Your task to perform on an android device: Open Yahoo.com Image 0: 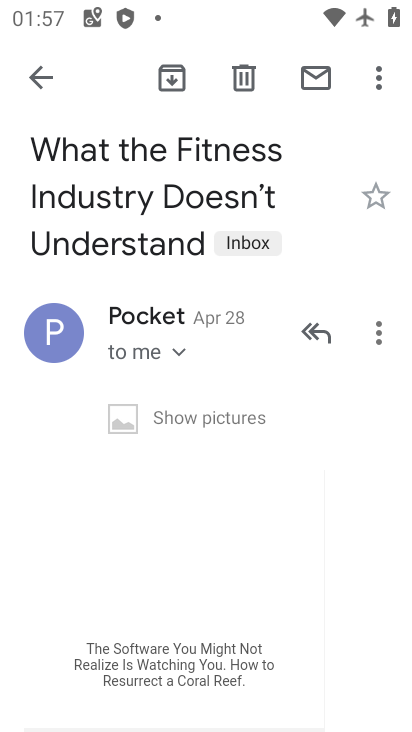
Step 0: press home button
Your task to perform on an android device: Open Yahoo.com Image 1: 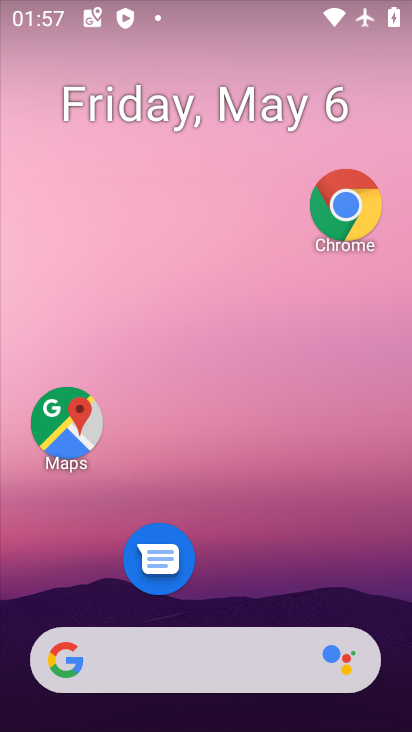
Step 1: click (361, 211)
Your task to perform on an android device: Open Yahoo.com Image 2: 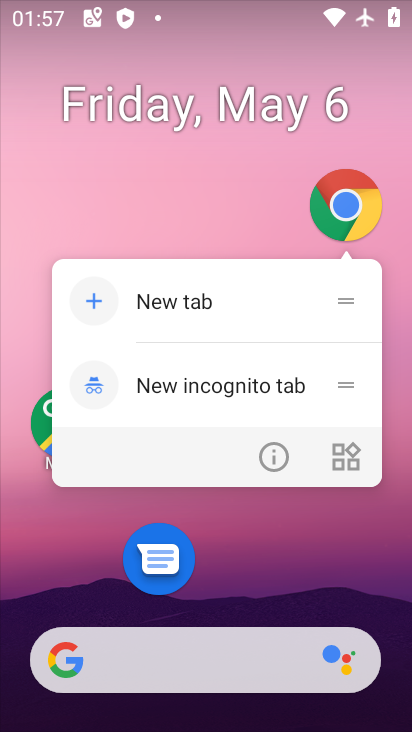
Step 2: click (332, 211)
Your task to perform on an android device: Open Yahoo.com Image 3: 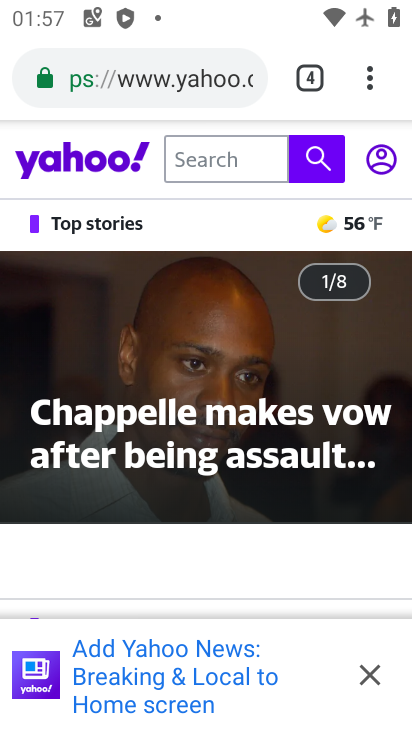
Step 3: task complete